Your task to perform on an android device: choose inbox layout in the gmail app Image 0: 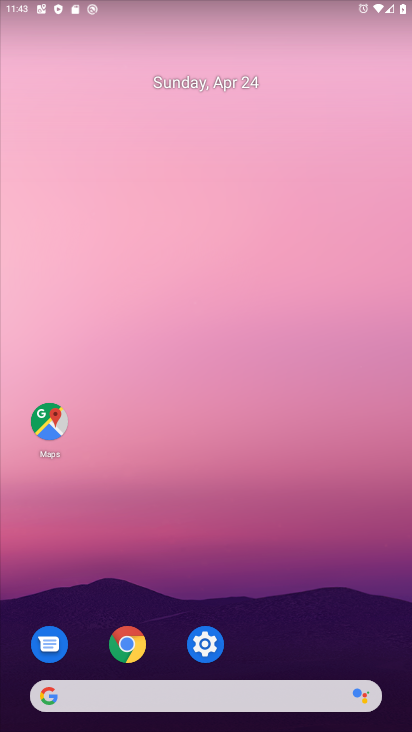
Step 0: drag from (212, 638) to (138, 152)
Your task to perform on an android device: choose inbox layout in the gmail app Image 1: 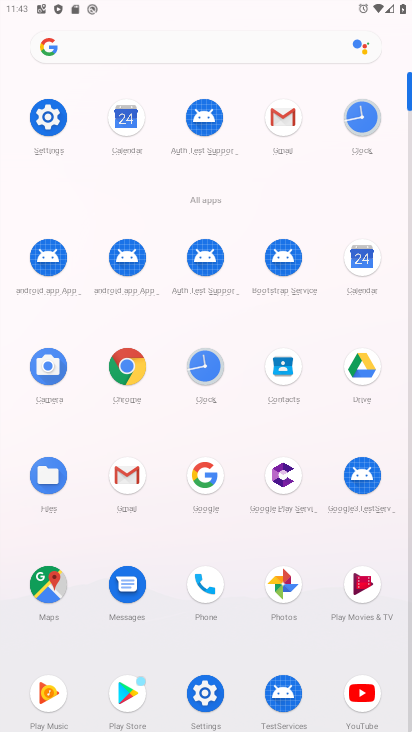
Step 1: click (271, 118)
Your task to perform on an android device: choose inbox layout in the gmail app Image 2: 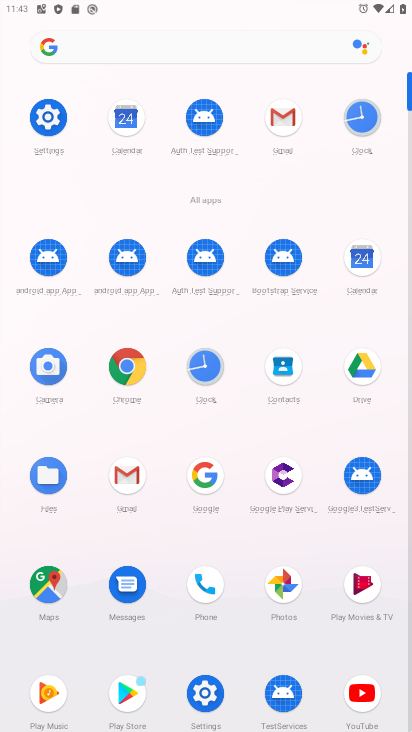
Step 2: click (271, 118)
Your task to perform on an android device: choose inbox layout in the gmail app Image 3: 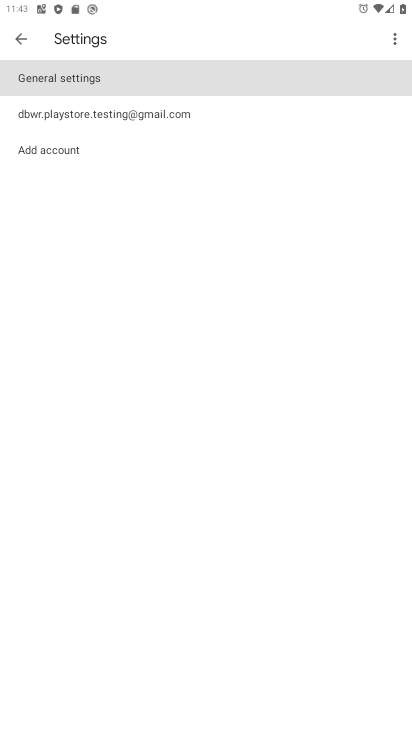
Step 3: click (271, 118)
Your task to perform on an android device: choose inbox layout in the gmail app Image 4: 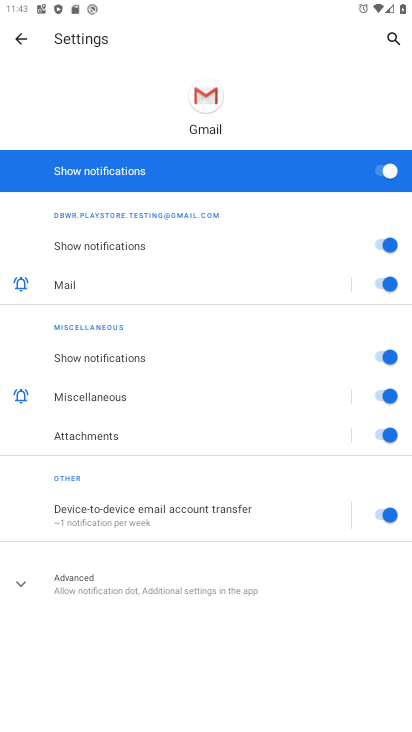
Step 4: click (16, 39)
Your task to perform on an android device: choose inbox layout in the gmail app Image 5: 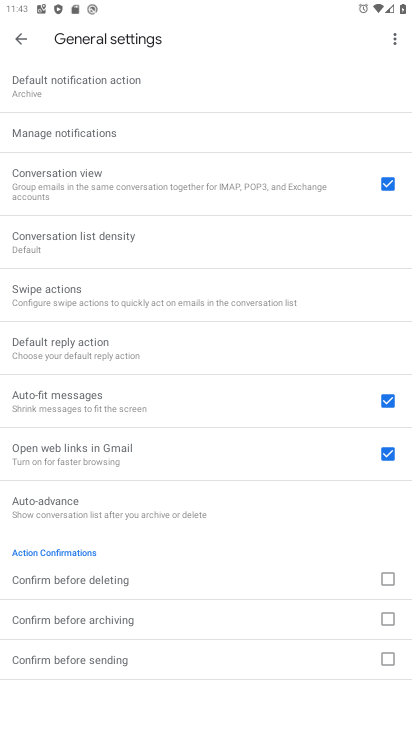
Step 5: click (17, 37)
Your task to perform on an android device: choose inbox layout in the gmail app Image 6: 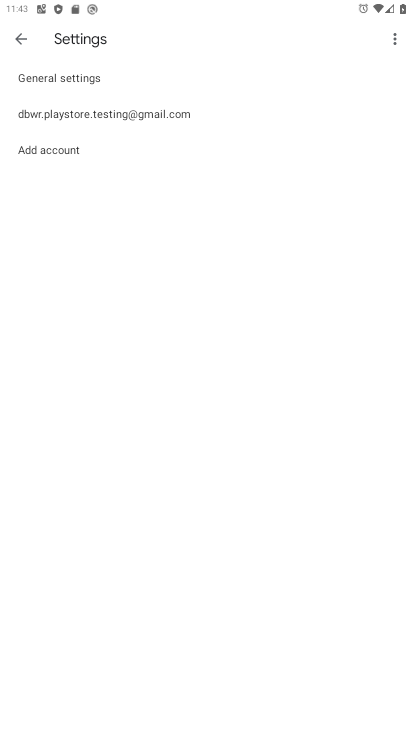
Step 6: click (19, 38)
Your task to perform on an android device: choose inbox layout in the gmail app Image 7: 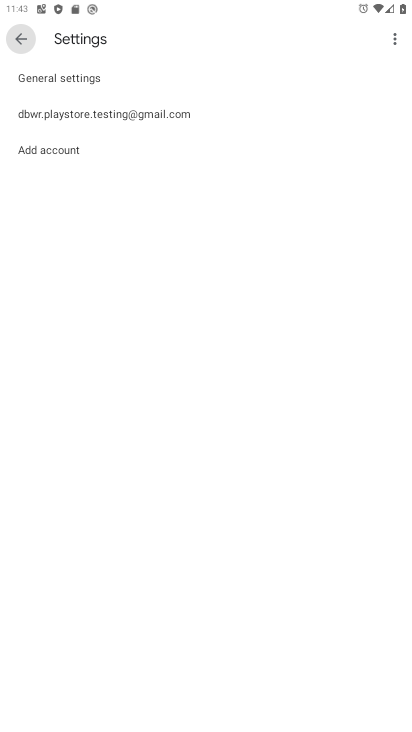
Step 7: click (19, 38)
Your task to perform on an android device: choose inbox layout in the gmail app Image 8: 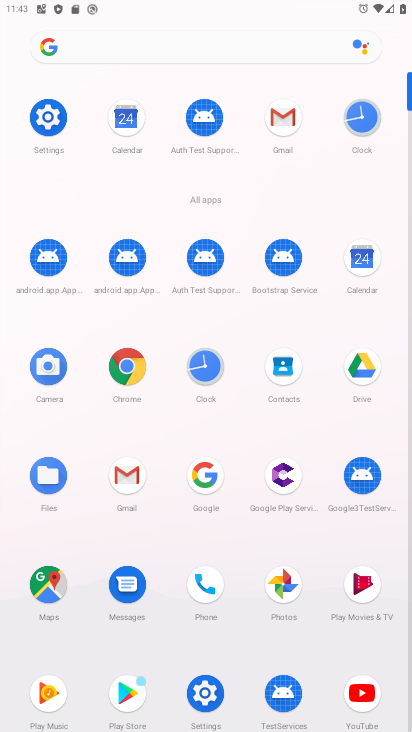
Step 8: click (119, 479)
Your task to perform on an android device: choose inbox layout in the gmail app Image 9: 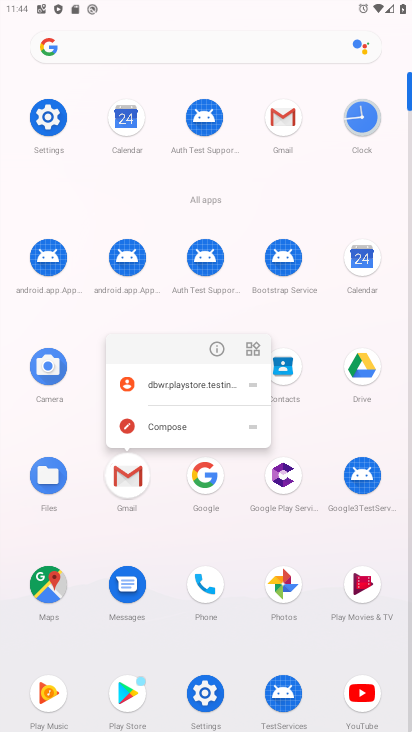
Step 9: click (119, 479)
Your task to perform on an android device: choose inbox layout in the gmail app Image 10: 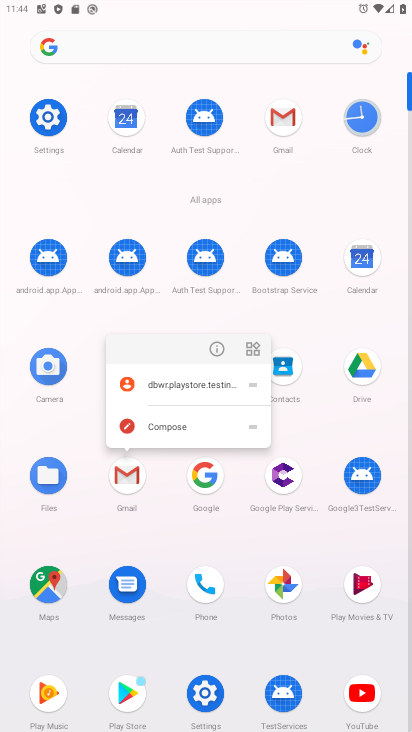
Step 10: click (122, 475)
Your task to perform on an android device: choose inbox layout in the gmail app Image 11: 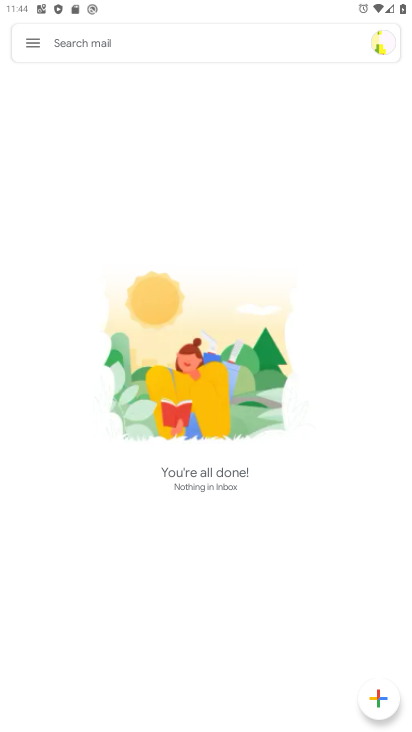
Step 11: drag from (31, 42) to (31, 116)
Your task to perform on an android device: choose inbox layout in the gmail app Image 12: 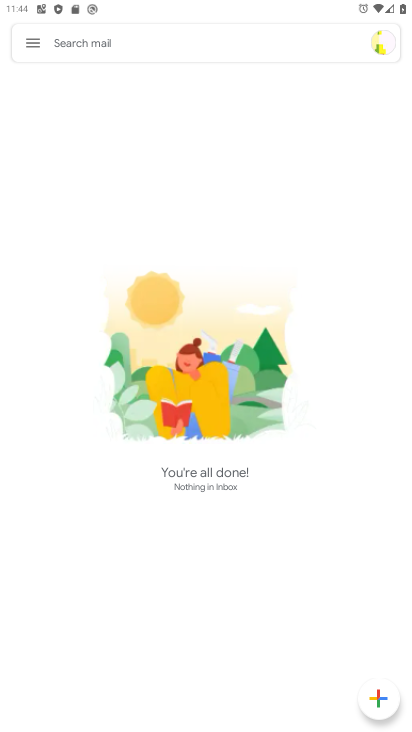
Step 12: click (31, 40)
Your task to perform on an android device: choose inbox layout in the gmail app Image 13: 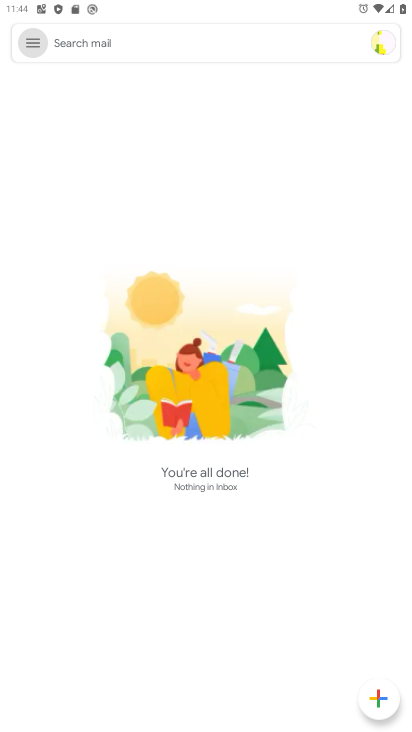
Step 13: click (31, 40)
Your task to perform on an android device: choose inbox layout in the gmail app Image 14: 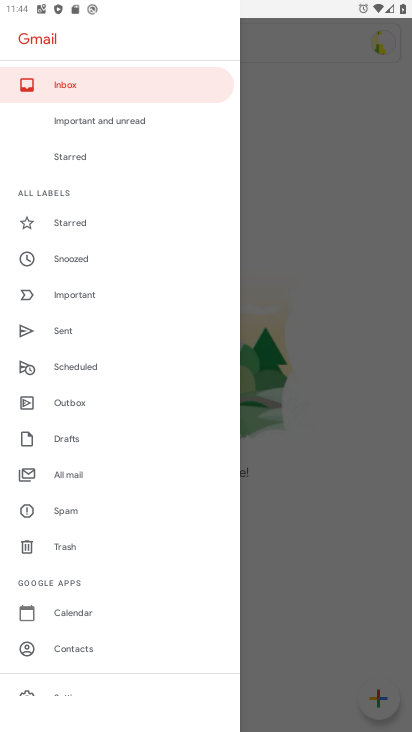
Step 14: click (62, 488)
Your task to perform on an android device: choose inbox layout in the gmail app Image 15: 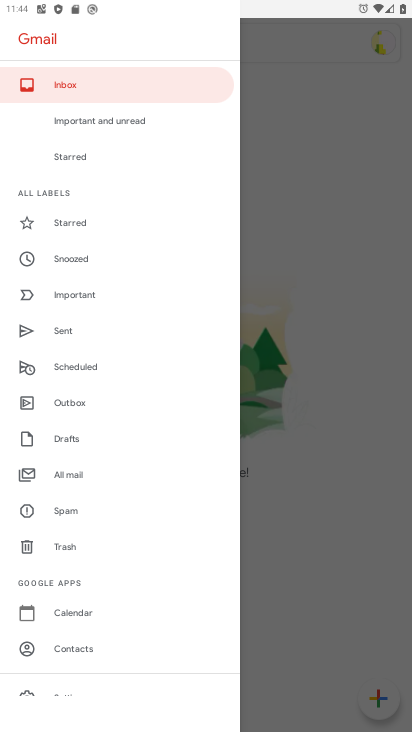
Step 15: click (63, 491)
Your task to perform on an android device: choose inbox layout in the gmail app Image 16: 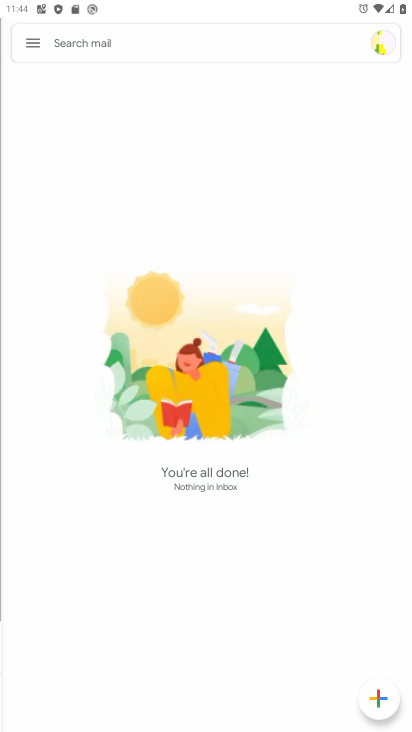
Step 16: click (72, 473)
Your task to perform on an android device: choose inbox layout in the gmail app Image 17: 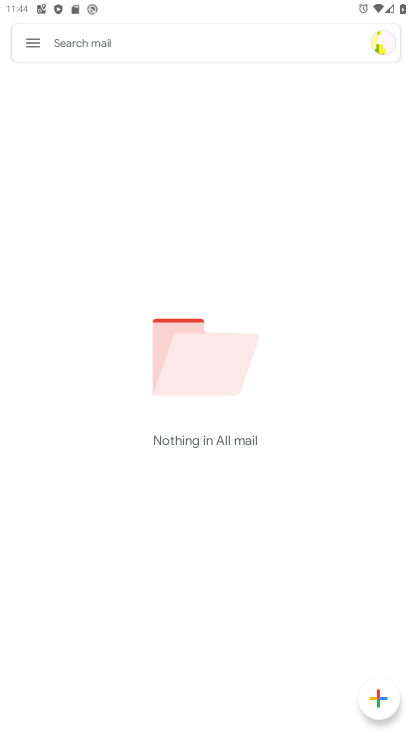
Step 17: task complete